Your task to perform on an android device: Set the phone to "Do not disturb". Image 0: 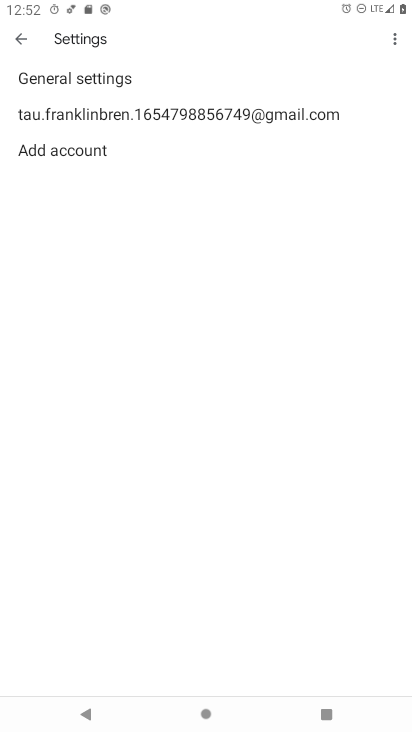
Step 0: press home button
Your task to perform on an android device: Set the phone to "Do not disturb". Image 1: 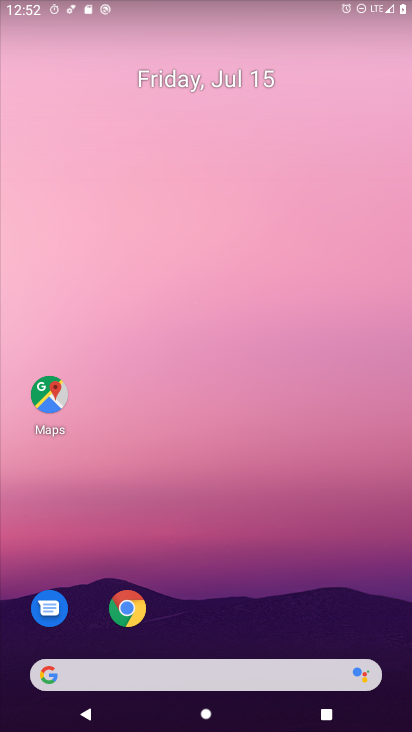
Step 1: drag from (222, 668) to (280, 78)
Your task to perform on an android device: Set the phone to "Do not disturb". Image 2: 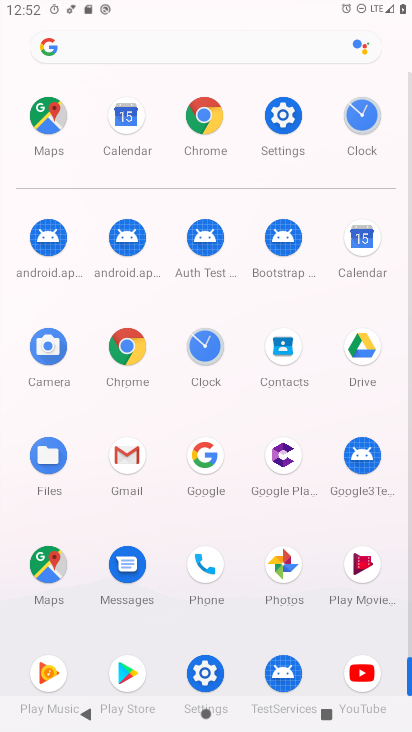
Step 2: click (283, 123)
Your task to perform on an android device: Set the phone to "Do not disturb". Image 3: 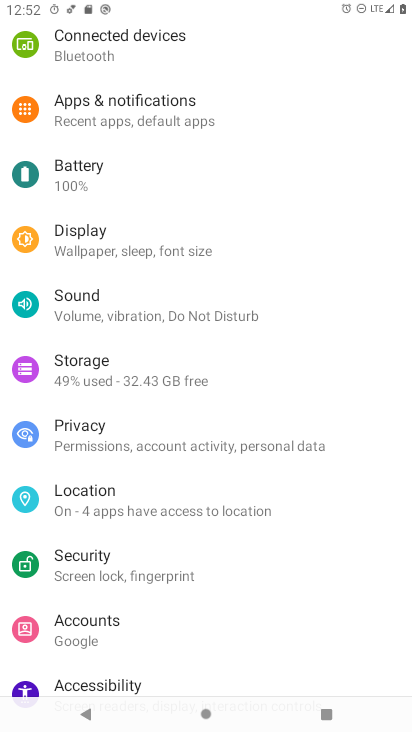
Step 3: click (112, 295)
Your task to perform on an android device: Set the phone to "Do not disturb". Image 4: 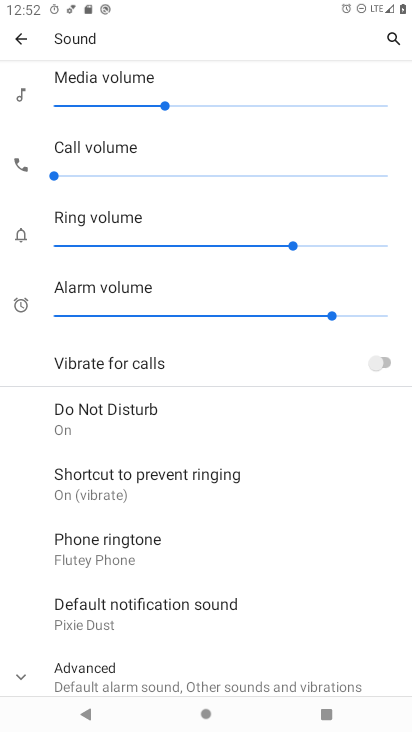
Step 4: click (86, 412)
Your task to perform on an android device: Set the phone to "Do not disturb". Image 5: 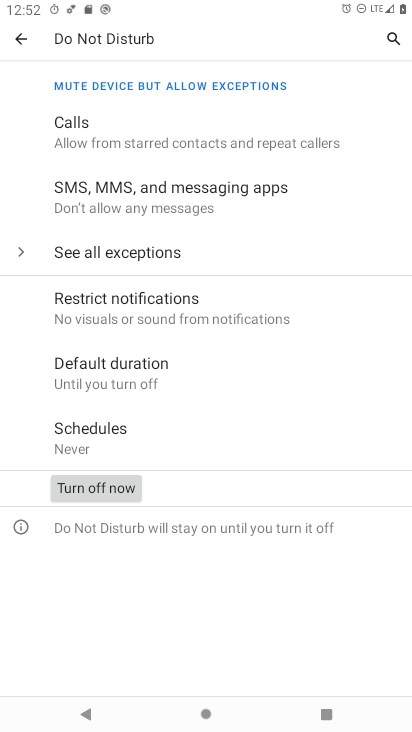
Step 5: task complete